Your task to perform on an android device: Is it going to rain today? Image 0: 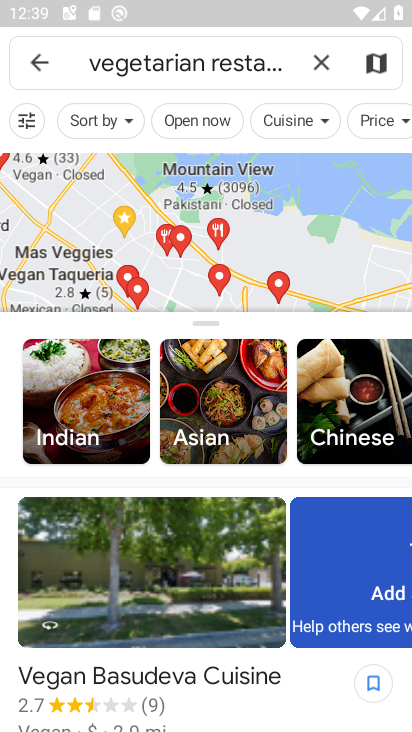
Step 0: press home button
Your task to perform on an android device: Is it going to rain today? Image 1: 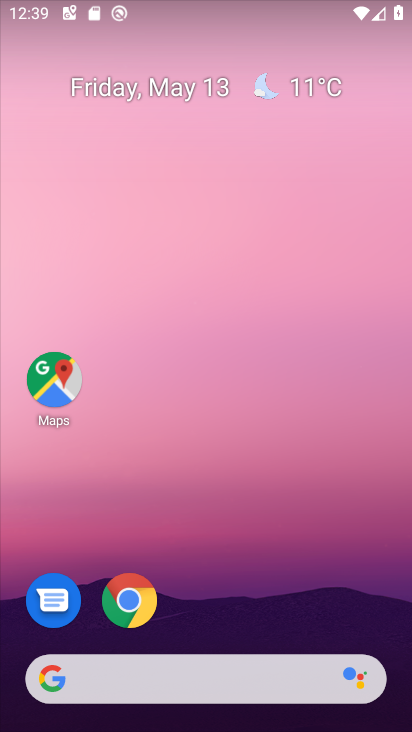
Step 1: drag from (218, 481) to (268, 86)
Your task to perform on an android device: Is it going to rain today? Image 2: 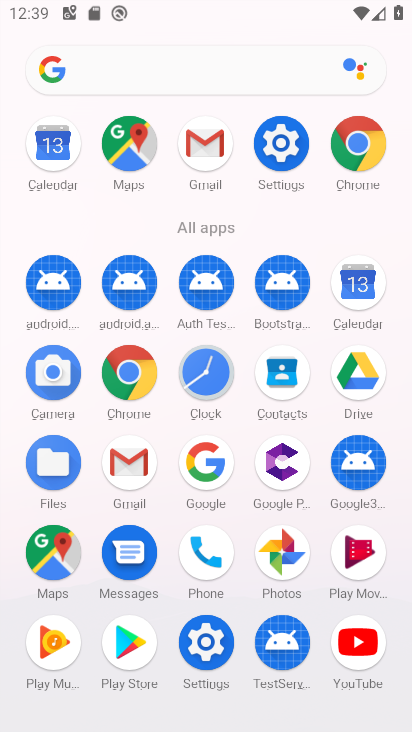
Step 2: click (361, 159)
Your task to perform on an android device: Is it going to rain today? Image 3: 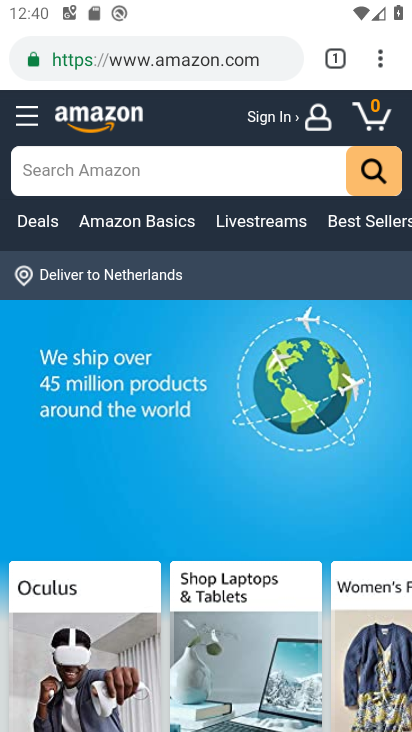
Step 3: click (161, 62)
Your task to perform on an android device: Is it going to rain today? Image 4: 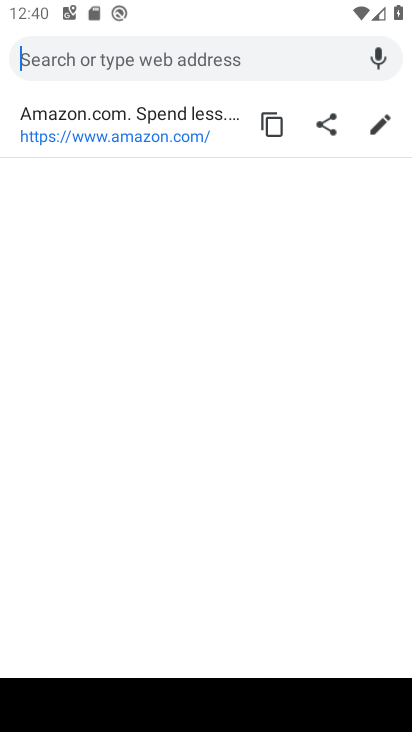
Step 4: type "Is it going to rain today?"
Your task to perform on an android device: Is it going to rain today? Image 5: 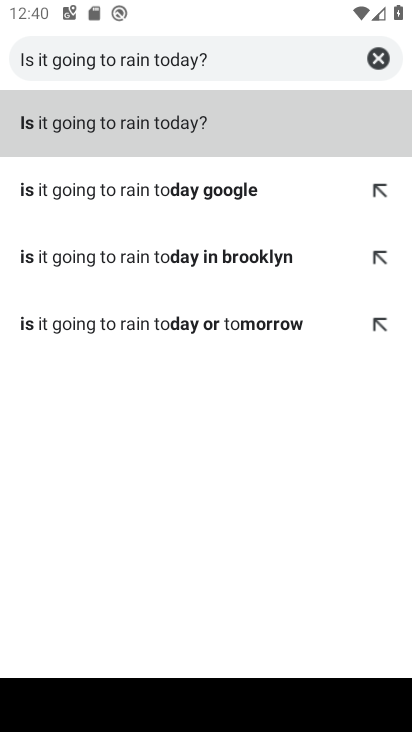
Step 5: click (158, 150)
Your task to perform on an android device: Is it going to rain today? Image 6: 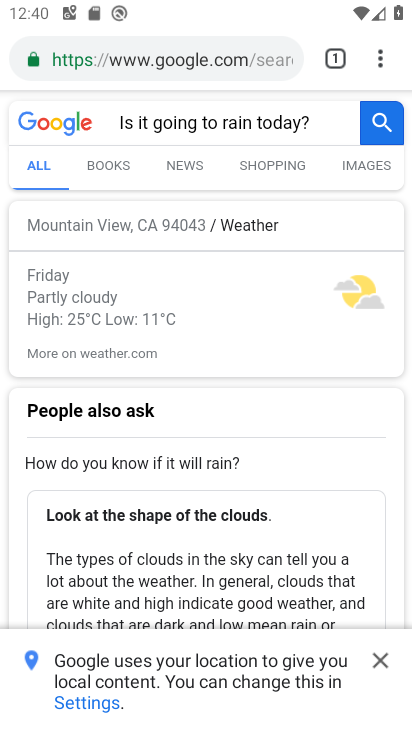
Step 6: task complete